Your task to perform on an android device: Open the Play Movies app and select the watchlist tab. Image 0: 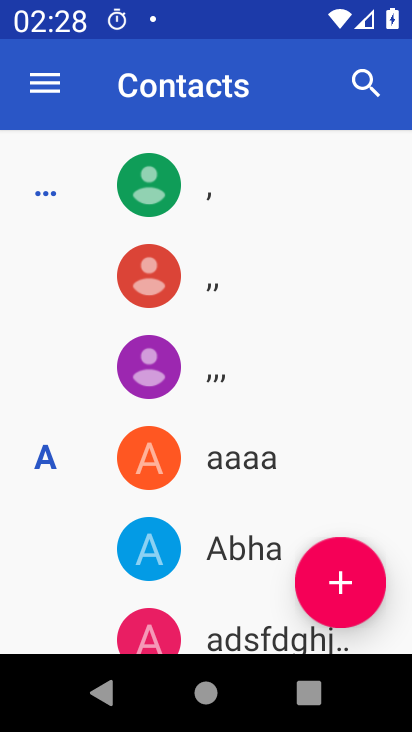
Step 0: press home button
Your task to perform on an android device: Open the Play Movies app and select the watchlist tab. Image 1: 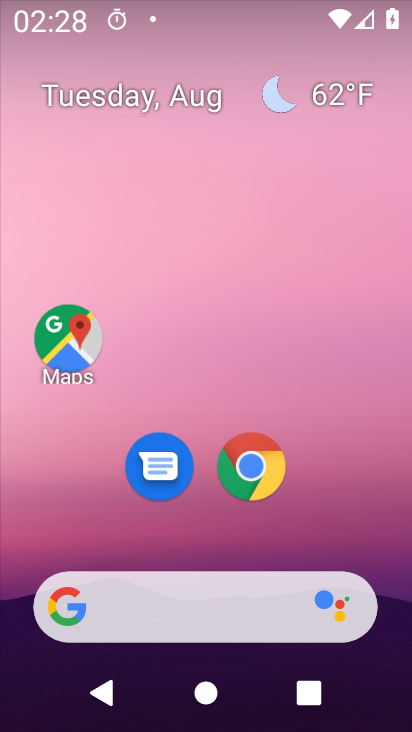
Step 1: drag from (379, 584) to (375, 125)
Your task to perform on an android device: Open the Play Movies app and select the watchlist tab. Image 2: 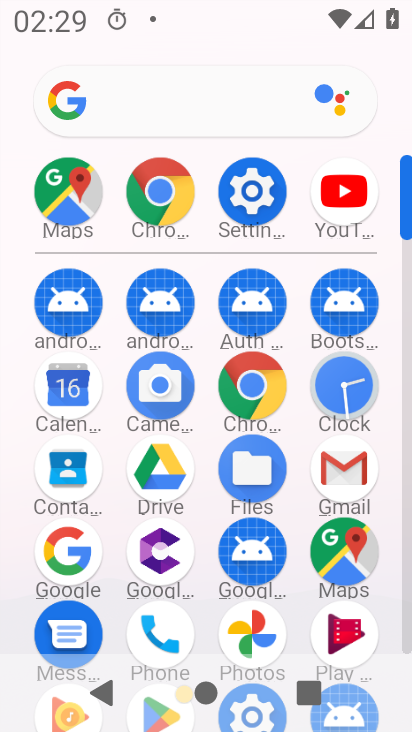
Step 2: click (348, 632)
Your task to perform on an android device: Open the Play Movies app and select the watchlist tab. Image 3: 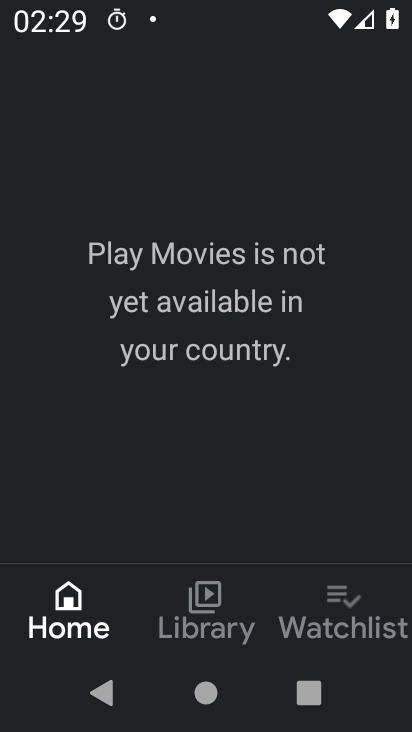
Step 3: click (346, 608)
Your task to perform on an android device: Open the Play Movies app and select the watchlist tab. Image 4: 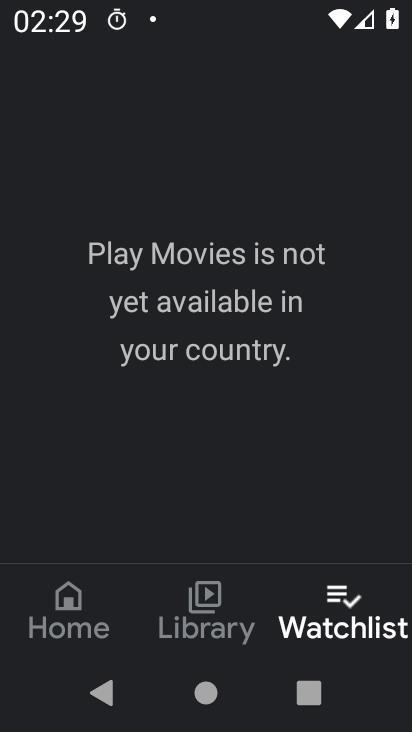
Step 4: task complete